Your task to perform on an android device: Search for seafood restaurants on Google Maps Image 0: 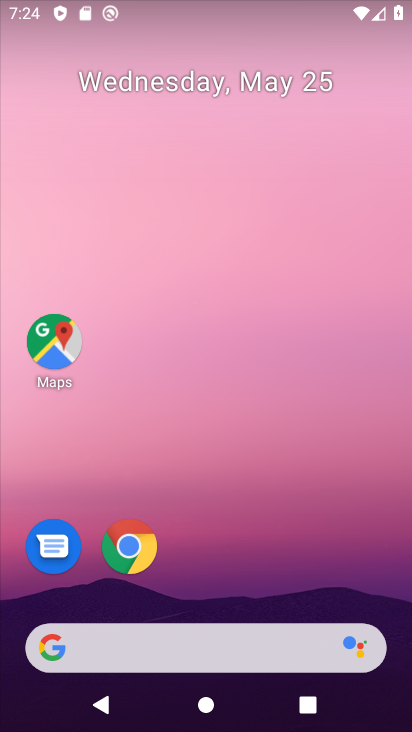
Step 0: click (49, 345)
Your task to perform on an android device: Search for seafood restaurants on Google Maps Image 1: 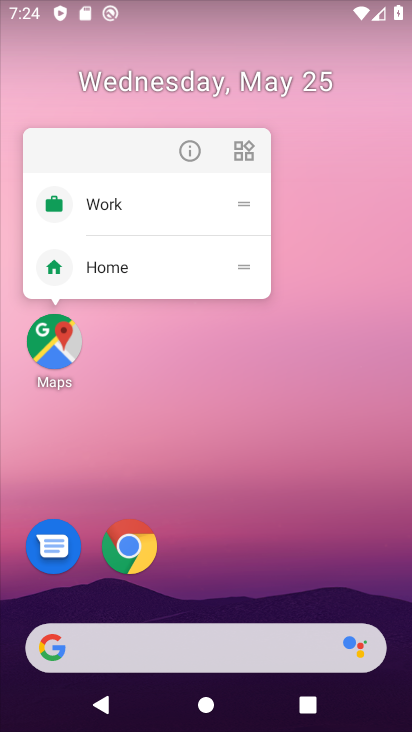
Step 1: click (56, 352)
Your task to perform on an android device: Search for seafood restaurants on Google Maps Image 2: 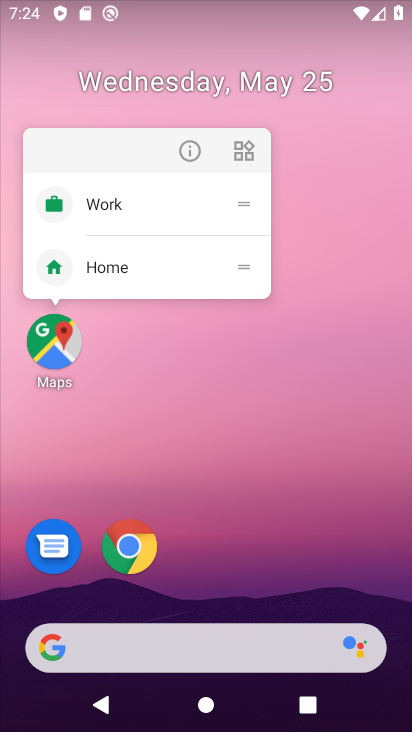
Step 2: click (61, 363)
Your task to perform on an android device: Search for seafood restaurants on Google Maps Image 3: 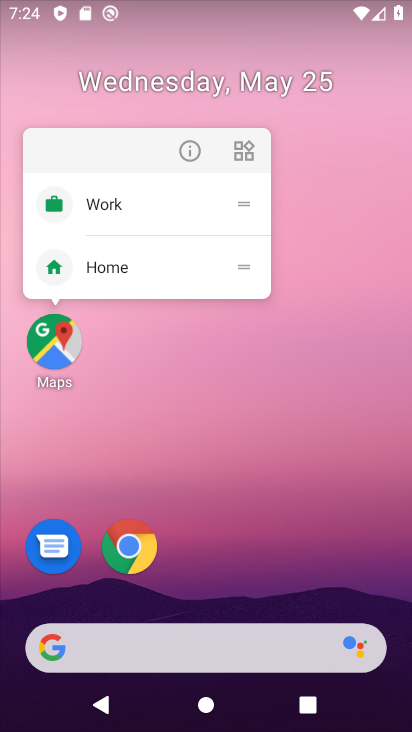
Step 3: click (53, 353)
Your task to perform on an android device: Search for seafood restaurants on Google Maps Image 4: 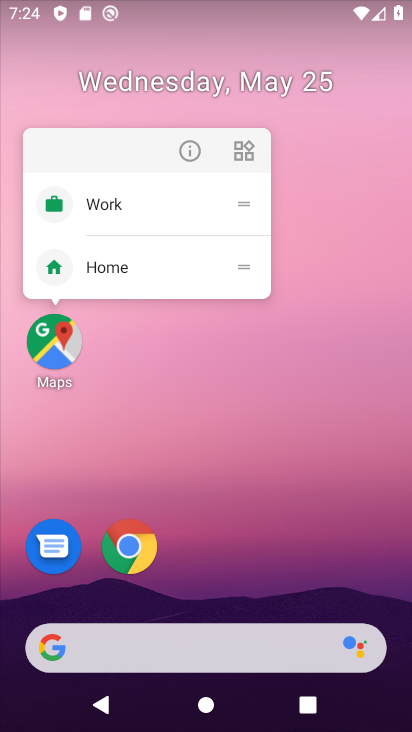
Step 4: click (57, 343)
Your task to perform on an android device: Search for seafood restaurants on Google Maps Image 5: 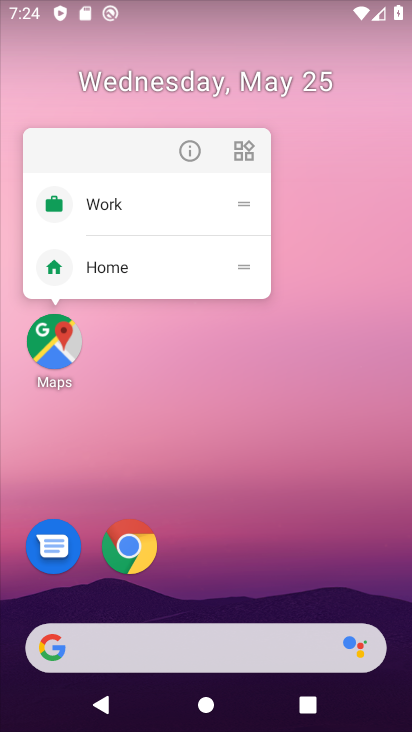
Step 5: click (54, 339)
Your task to perform on an android device: Search for seafood restaurants on Google Maps Image 6: 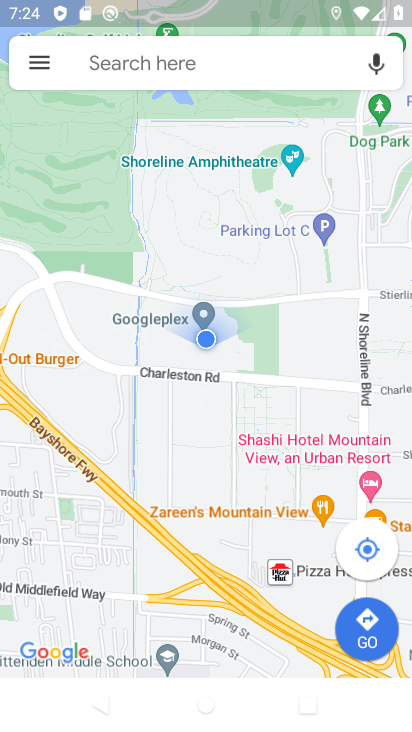
Step 6: click (195, 65)
Your task to perform on an android device: Search for seafood restaurants on Google Maps Image 7: 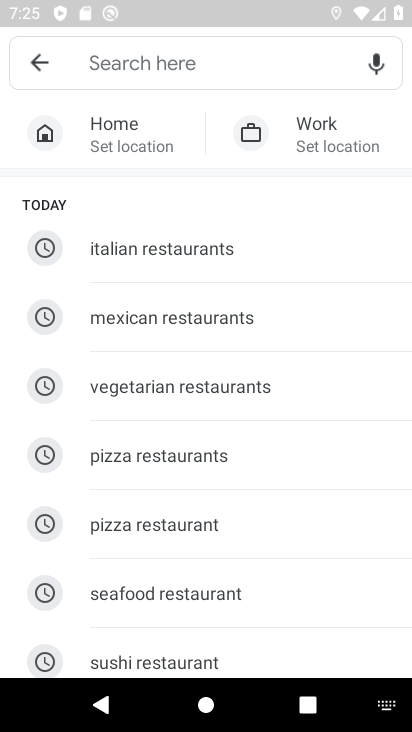
Step 7: click (222, 596)
Your task to perform on an android device: Search for seafood restaurants on Google Maps Image 8: 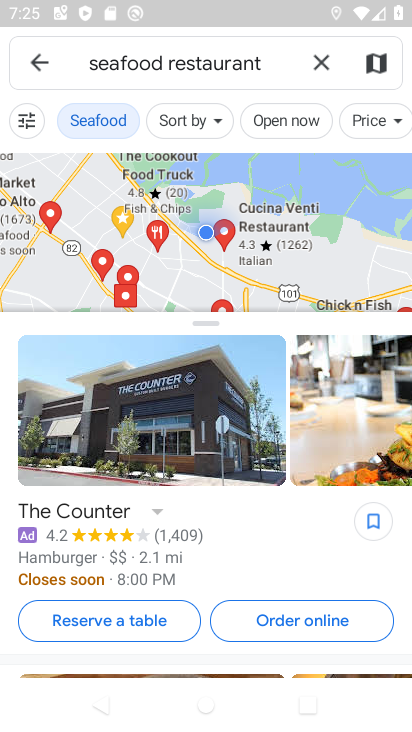
Step 8: task complete